Your task to perform on an android device: Do I have any events tomorrow? Image 0: 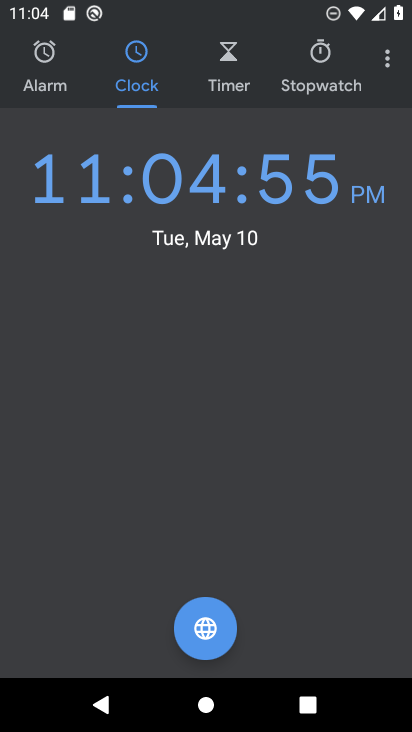
Step 0: press home button
Your task to perform on an android device: Do I have any events tomorrow? Image 1: 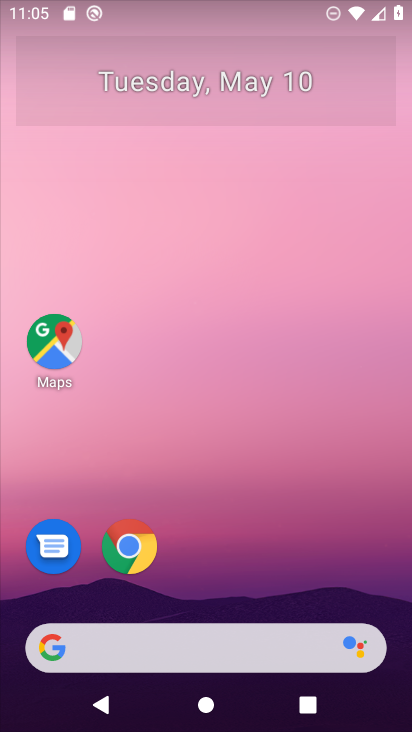
Step 1: drag from (296, 569) to (304, 74)
Your task to perform on an android device: Do I have any events tomorrow? Image 2: 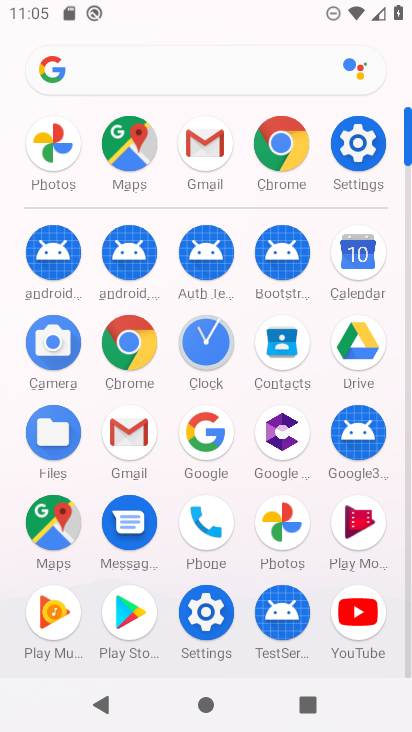
Step 2: click (354, 253)
Your task to perform on an android device: Do I have any events tomorrow? Image 3: 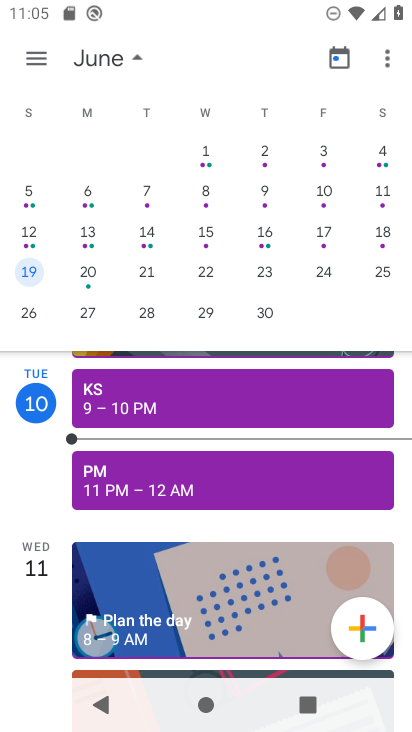
Step 3: click (91, 272)
Your task to perform on an android device: Do I have any events tomorrow? Image 4: 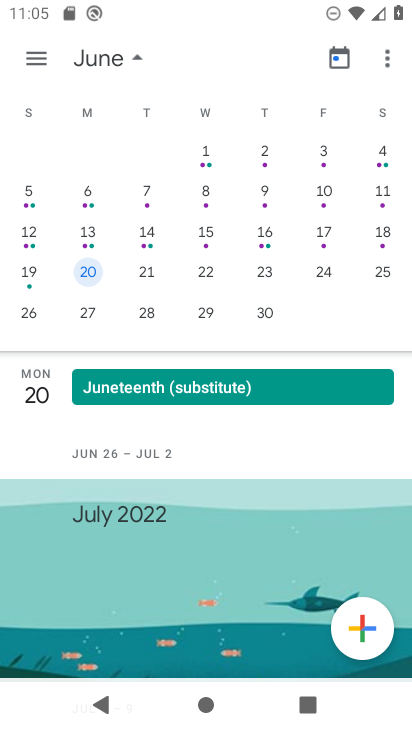
Step 4: task complete